Your task to perform on an android device: Turn on the flashlight Image 0: 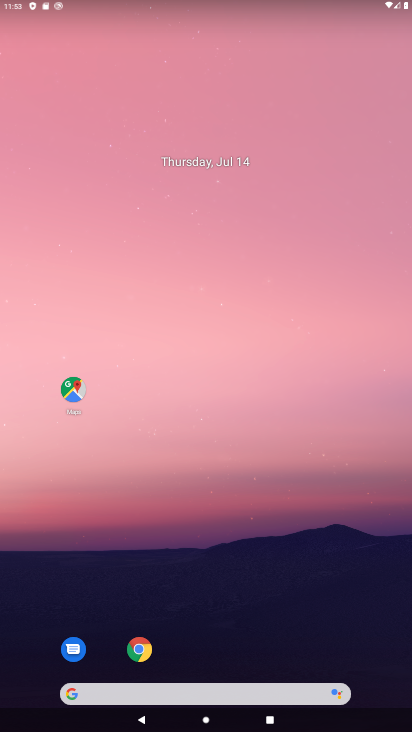
Step 0: drag from (337, 601) to (331, 184)
Your task to perform on an android device: Turn on the flashlight Image 1: 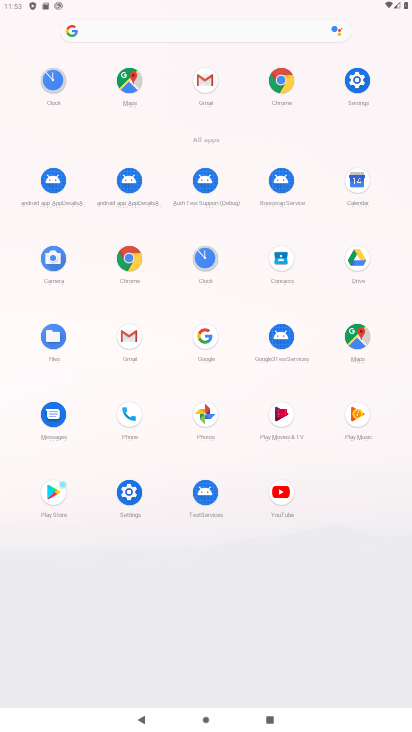
Step 1: click (360, 75)
Your task to perform on an android device: Turn on the flashlight Image 2: 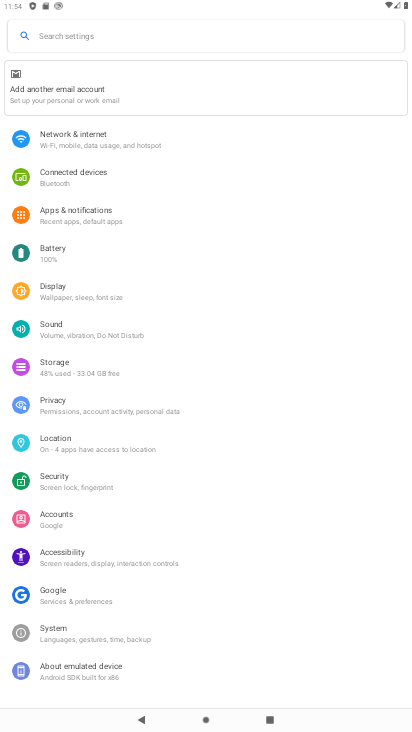
Step 2: task complete